Your task to perform on an android device: Open notification settings Image 0: 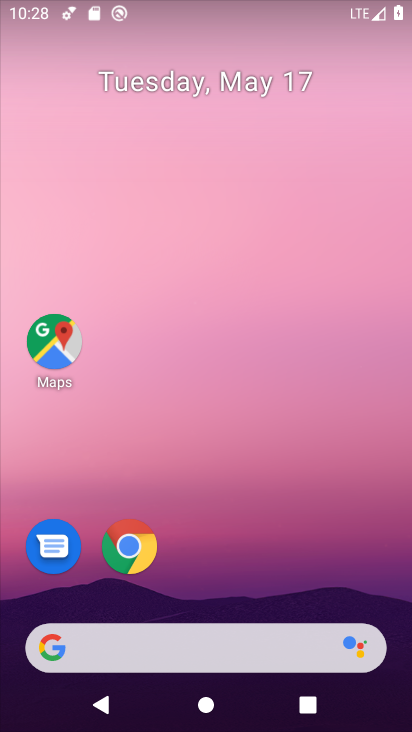
Step 0: drag from (203, 562) to (276, 95)
Your task to perform on an android device: Open notification settings Image 1: 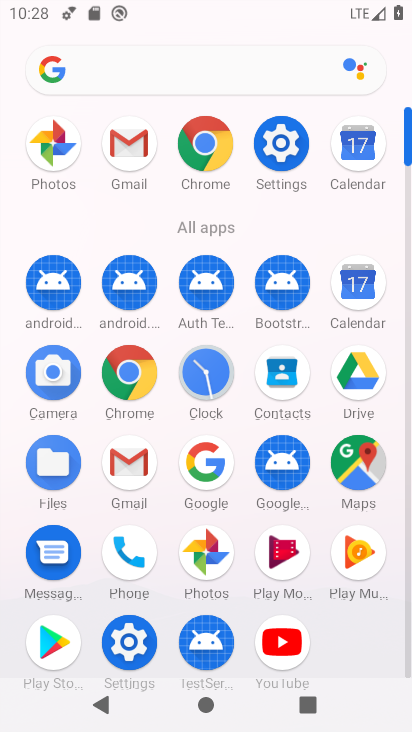
Step 1: click (138, 649)
Your task to perform on an android device: Open notification settings Image 2: 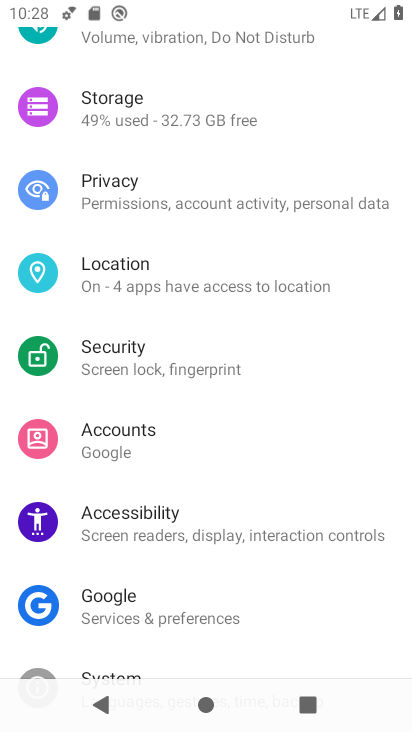
Step 2: drag from (181, 185) to (129, 551)
Your task to perform on an android device: Open notification settings Image 3: 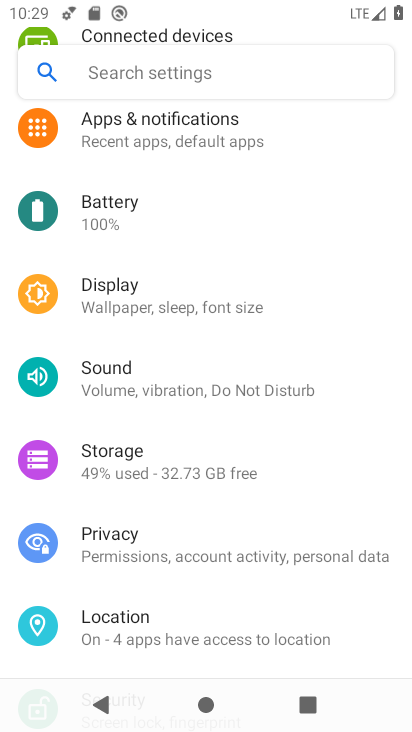
Step 3: click (172, 305)
Your task to perform on an android device: Open notification settings Image 4: 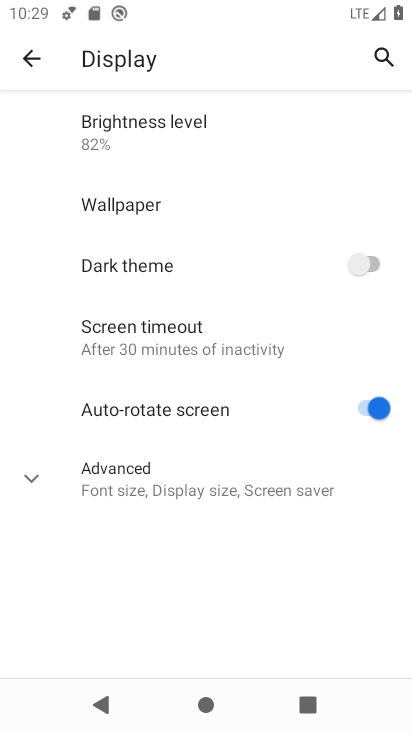
Step 4: click (32, 41)
Your task to perform on an android device: Open notification settings Image 5: 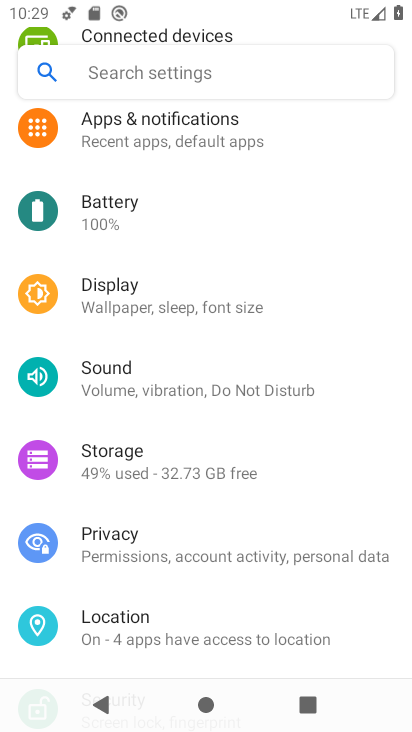
Step 5: drag from (197, 234) to (187, 574)
Your task to perform on an android device: Open notification settings Image 6: 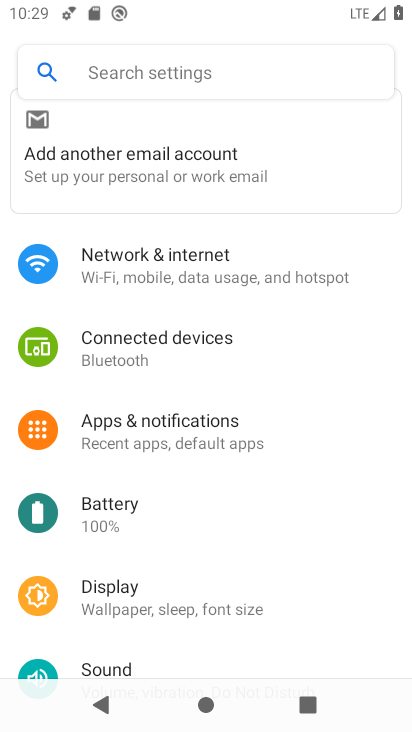
Step 6: click (203, 432)
Your task to perform on an android device: Open notification settings Image 7: 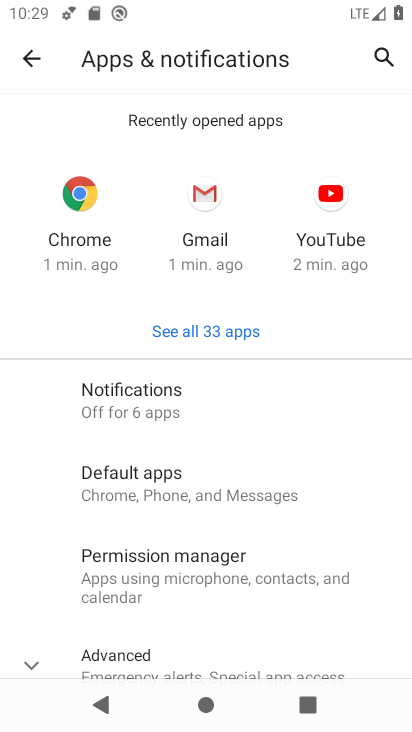
Step 7: click (161, 405)
Your task to perform on an android device: Open notification settings Image 8: 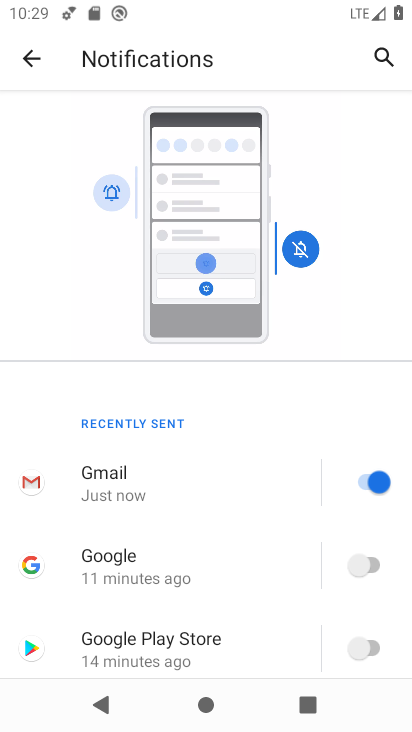
Step 8: task complete